Your task to perform on an android device: Show me popular games on the Play Store Image 0: 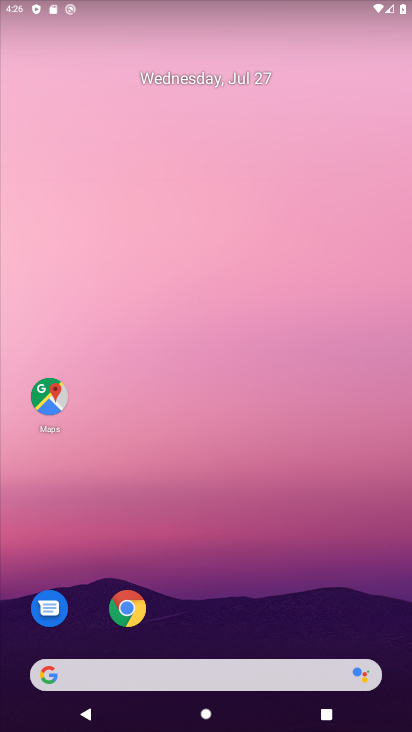
Step 0: press home button
Your task to perform on an android device: Show me popular games on the Play Store Image 1: 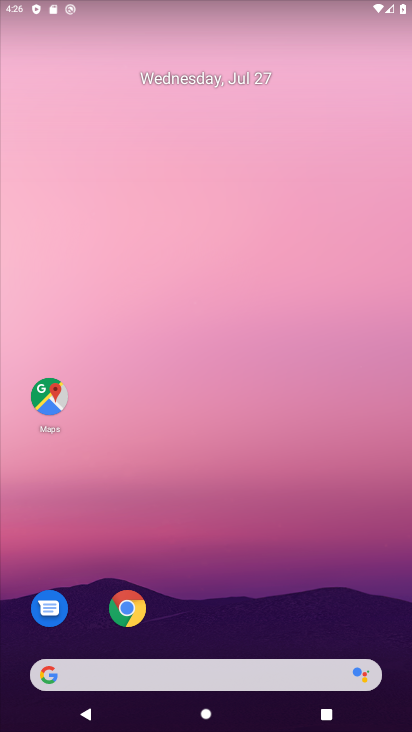
Step 1: click (208, 626)
Your task to perform on an android device: Show me popular games on the Play Store Image 2: 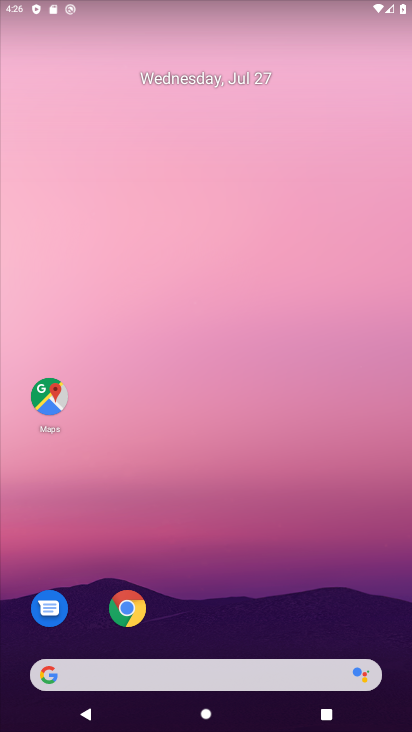
Step 2: drag from (205, 628) to (221, 414)
Your task to perform on an android device: Show me popular games on the Play Store Image 3: 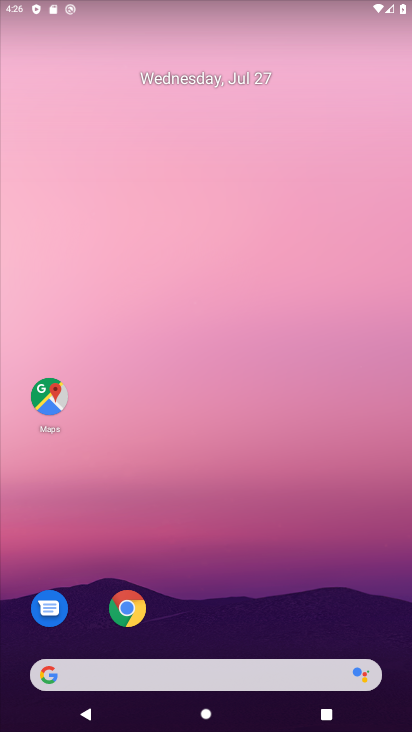
Step 3: drag from (261, 618) to (254, 366)
Your task to perform on an android device: Show me popular games on the Play Store Image 4: 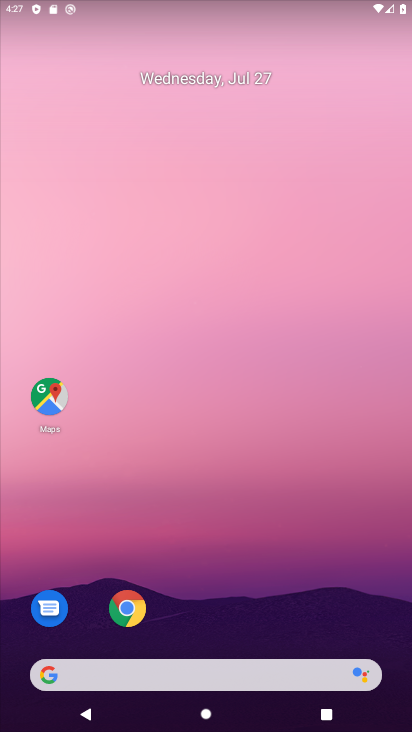
Step 4: drag from (209, 631) to (225, 585)
Your task to perform on an android device: Show me popular games on the Play Store Image 5: 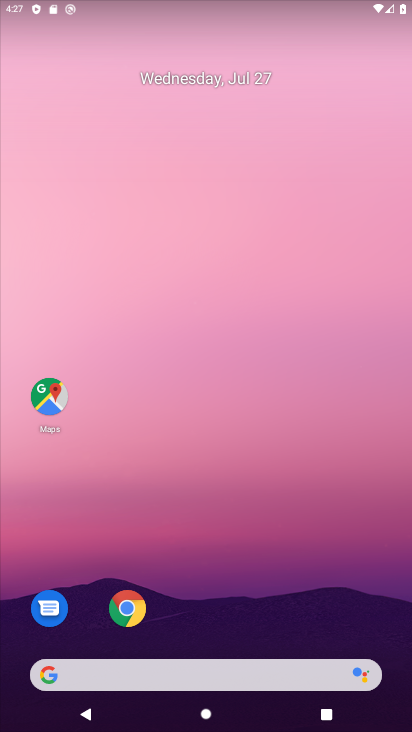
Step 5: drag from (278, 629) to (283, 40)
Your task to perform on an android device: Show me popular games on the Play Store Image 6: 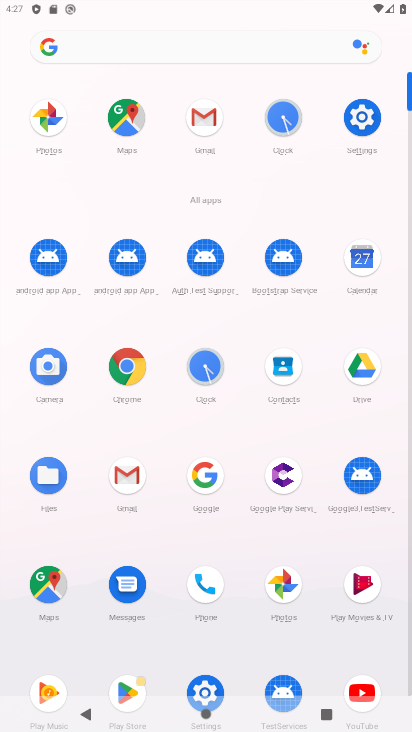
Step 6: click (129, 686)
Your task to perform on an android device: Show me popular games on the Play Store Image 7: 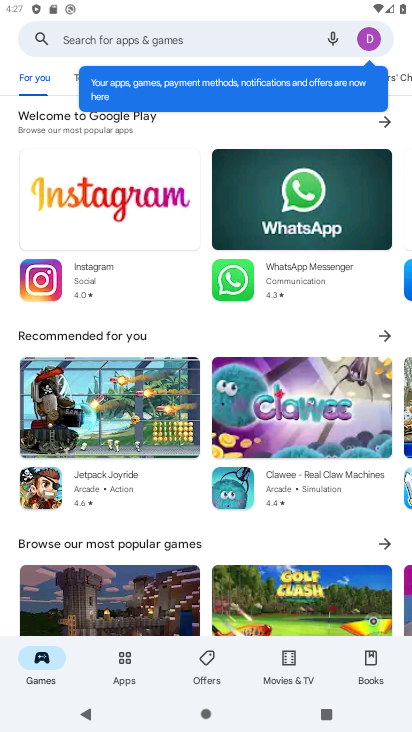
Step 7: click (44, 657)
Your task to perform on an android device: Show me popular games on the Play Store Image 8: 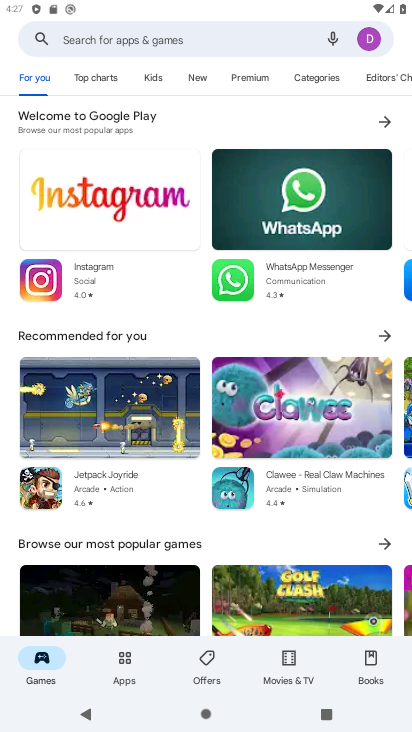
Step 8: click (309, 72)
Your task to perform on an android device: Show me popular games on the Play Store Image 9: 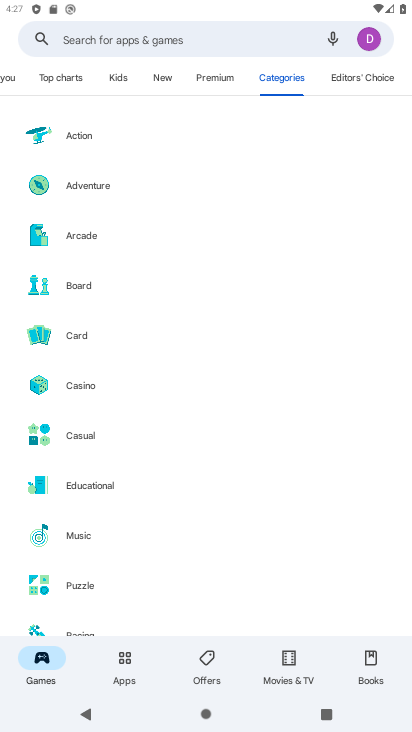
Step 9: task complete